Your task to perform on an android device: Open battery settings Image 0: 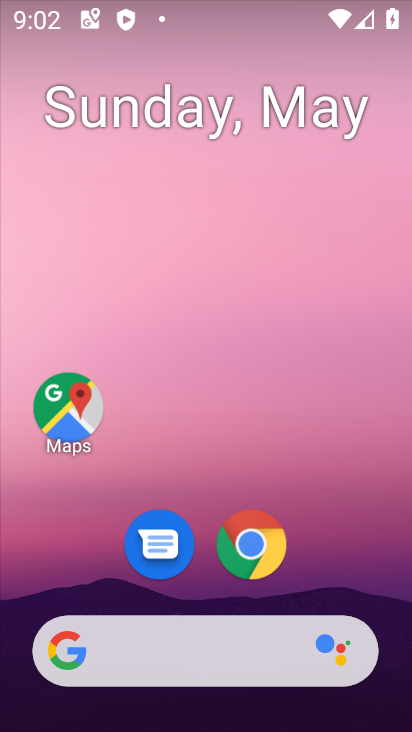
Step 0: drag from (367, 583) to (396, 152)
Your task to perform on an android device: Open battery settings Image 1: 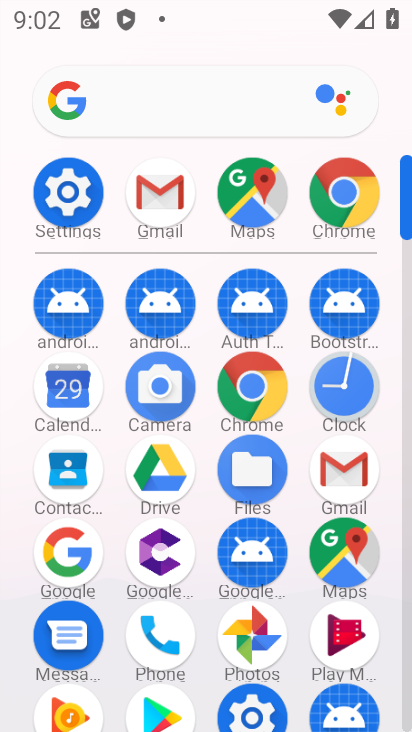
Step 1: click (68, 210)
Your task to perform on an android device: Open battery settings Image 2: 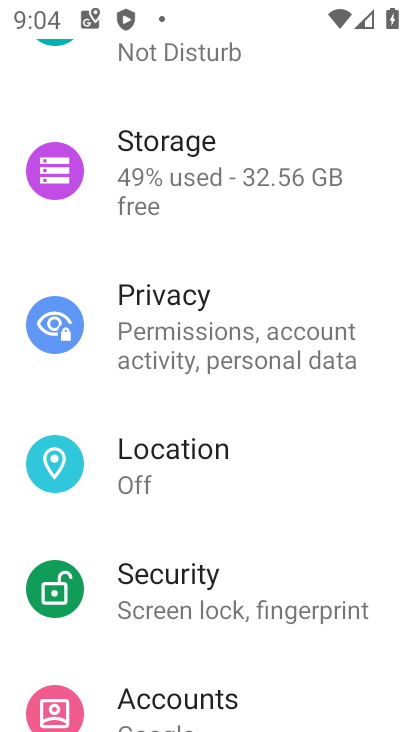
Step 2: drag from (216, 611) to (288, 200)
Your task to perform on an android device: Open battery settings Image 3: 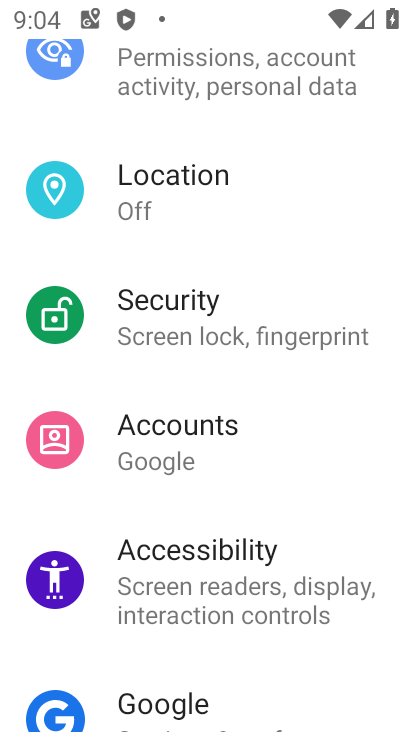
Step 3: drag from (216, 234) to (306, 606)
Your task to perform on an android device: Open battery settings Image 4: 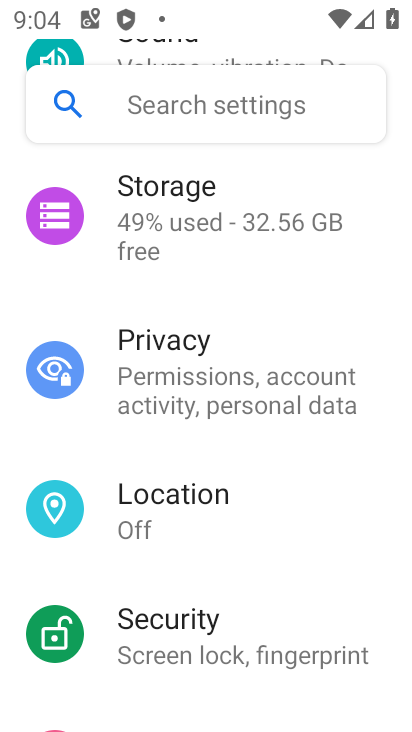
Step 4: drag from (228, 282) to (259, 579)
Your task to perform on an android device: Open battery settings Image 5: 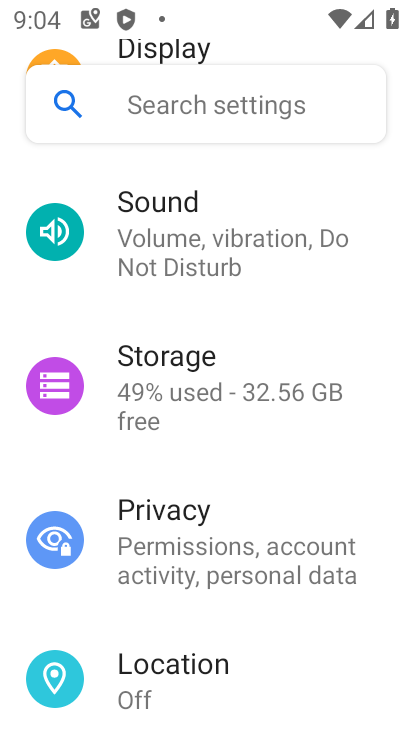
Step 5: drag from (236, 283) to (251, 604)
Your task to perform on an android device: Open battery settings Image 6: 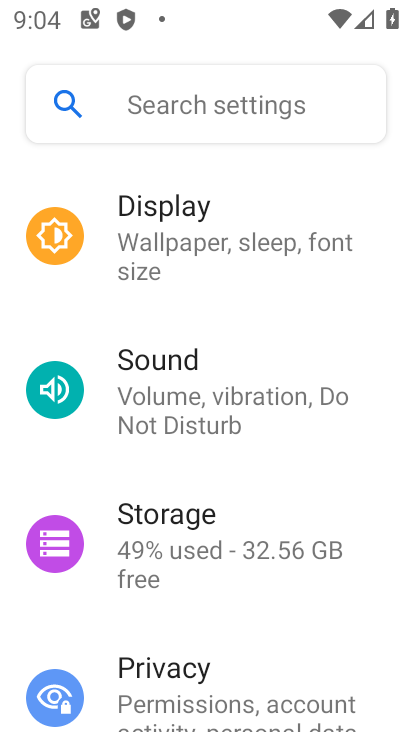
Step 6: drag from (233, 261) to (277, 622)
Your task to perform on an android device: Open battery settings Image 7: 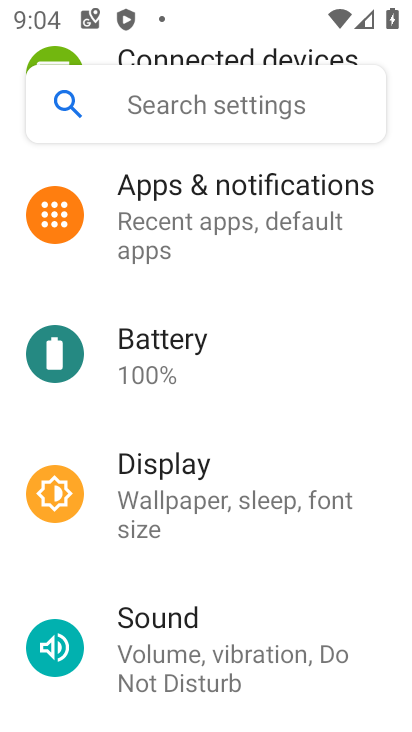
Step 7: click (171, 363)
Your task to perform on an android device: Open battery settings Image 8: 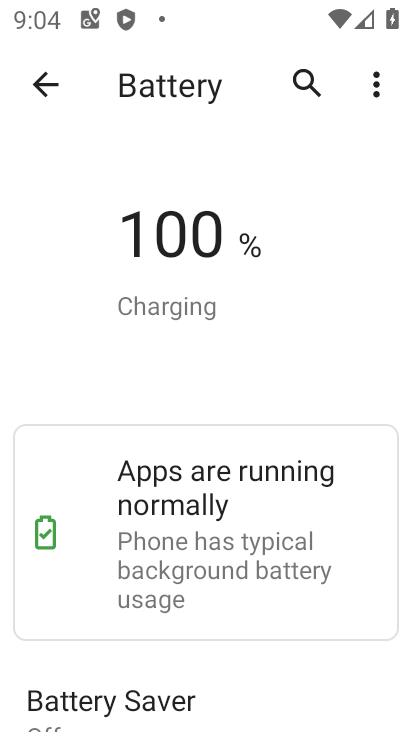
Step 8: task complete